Your task to perform on an android device: Open Reddit.com Image 0: 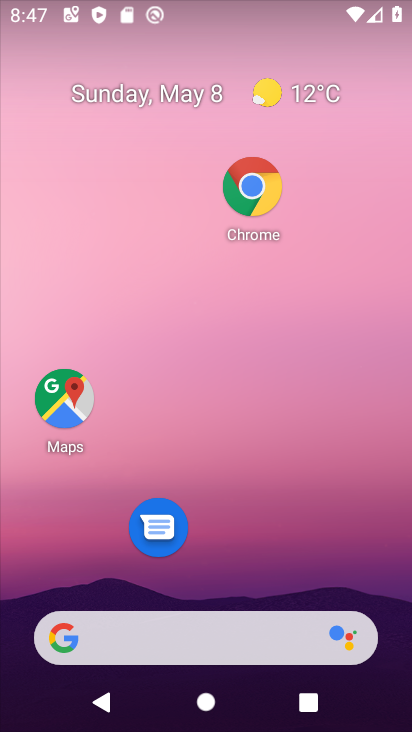
Step 0: drag from (279, 550) to (284, 329)
Your task to perform on an android device: Open Reddit.com Image 1: 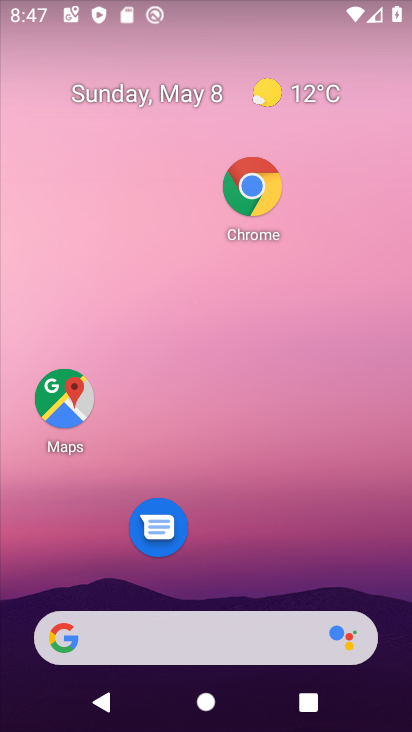
Step 1: drag from (252, 559) to (306, 360)
Your task to perform on an android device: Open Reddit.com Image 2: 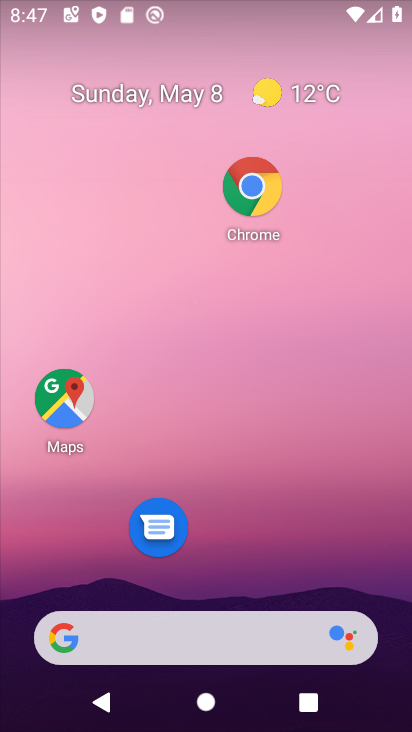
Step 2: drag from (263, 604) to (326, 313)
Your task to perform on an android device: Open Reddit.com Image 3: 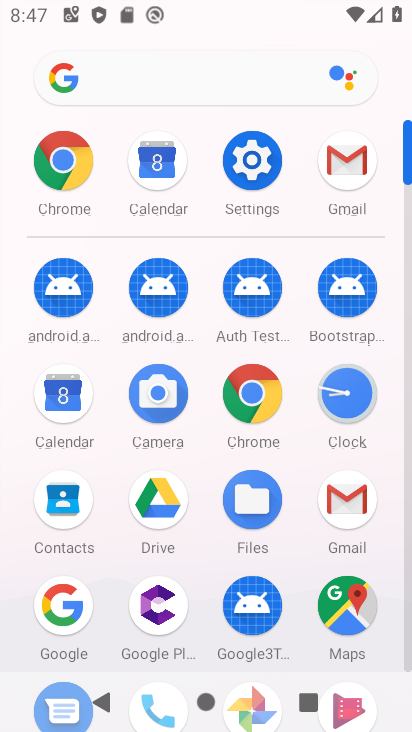
Step 3: click (238, 388)
Your task to perform on an android device: Open Reddit.com Image 4: 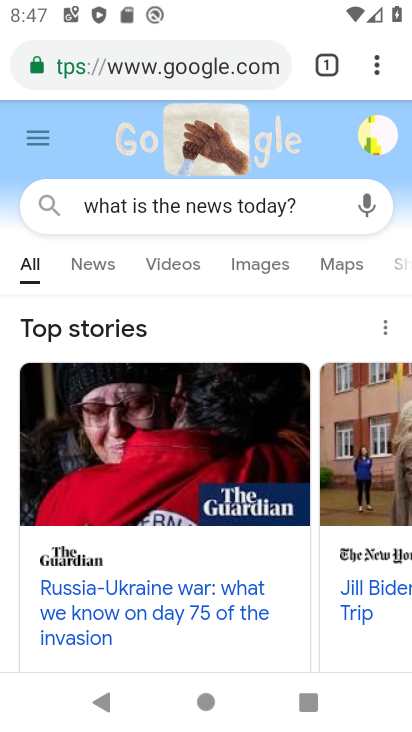
Step 4: click (367, 67)
Your task to perform on an android device: Open Reddit.com Image 5: 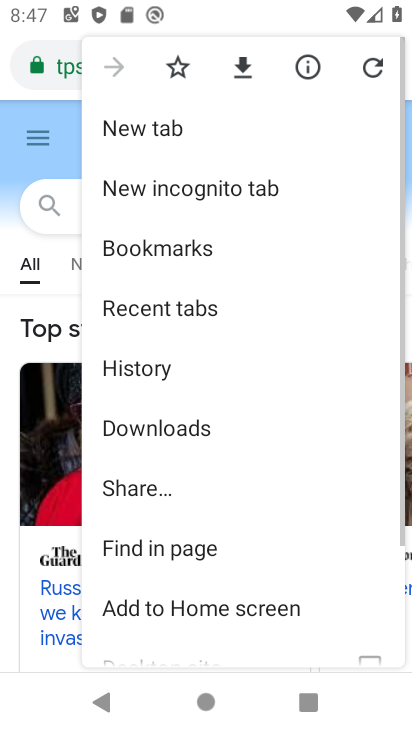
Step 5: click (173, 135)
Your task to perform on an android device: Open Reddit.com Image 6: 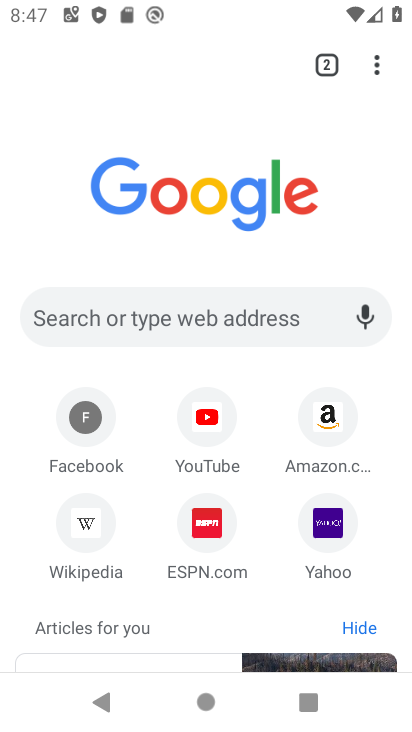
Step 6: click (116, 314)
Your task to perform on an android device: Open Reddit.com Image 7: 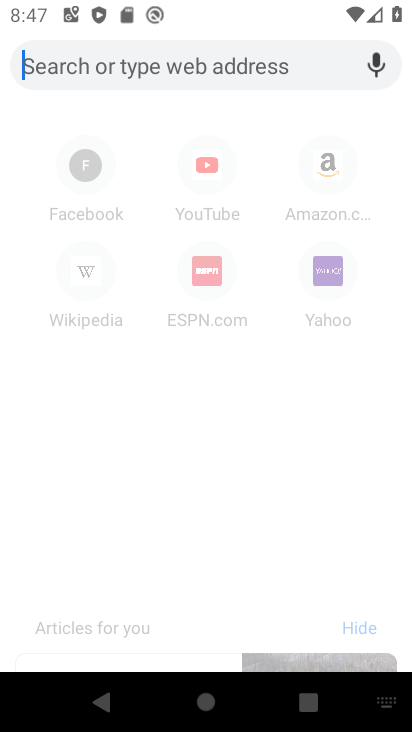
Step 7: type " Reddit.com"
Your task to perform on an android device: Open Reddit.com Image 8: 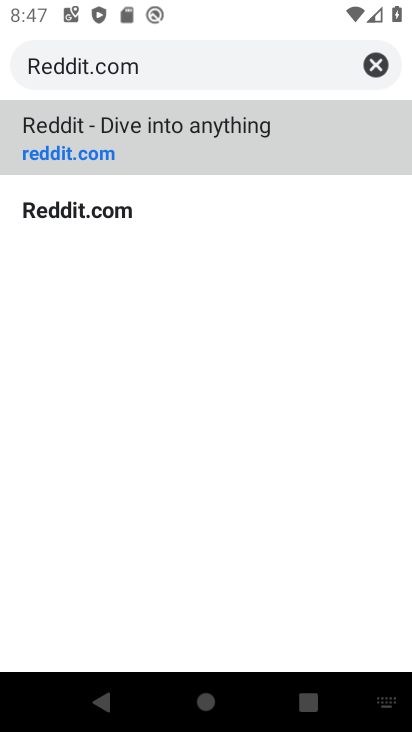
Step 8: click (135, 145)
Your task to perform on an android device: Open Reddit.com Image 9: 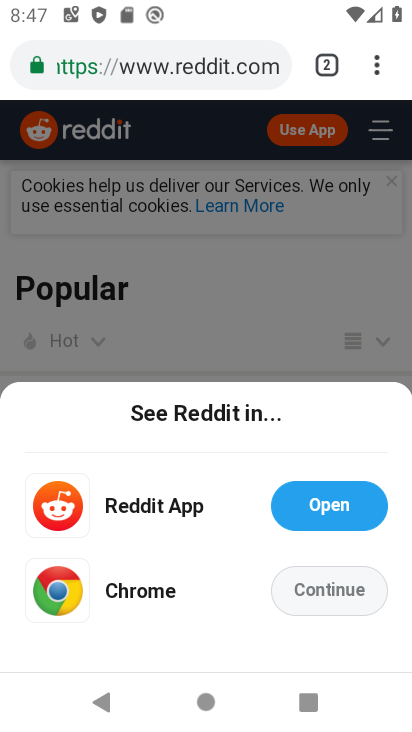
Step 9: click (151, 502)
Your task to perform on an android device: Open Reddit.com Image 10: 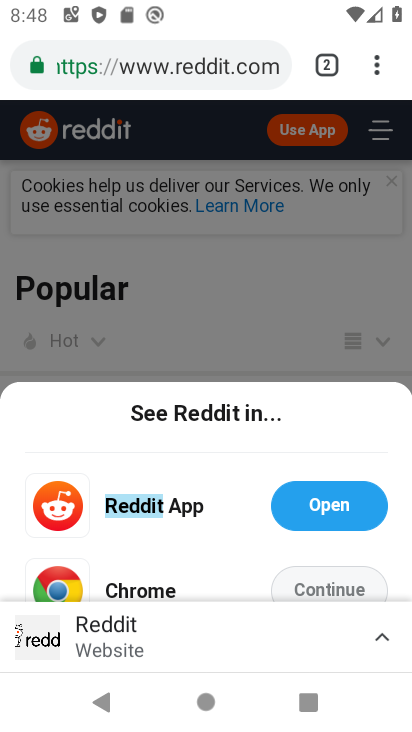
Step 10: click (299, 500)
Your task to perform on an android device: Open Reddit.com Image 11: 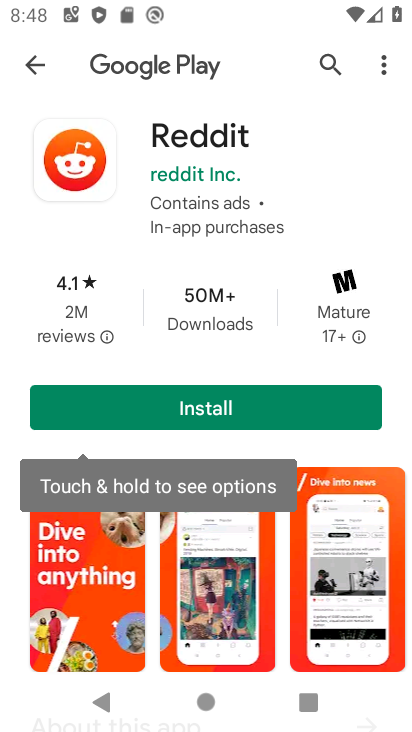
Step 11: press back button
Your task to perform on an android device: Open Reddit.com Image 12: 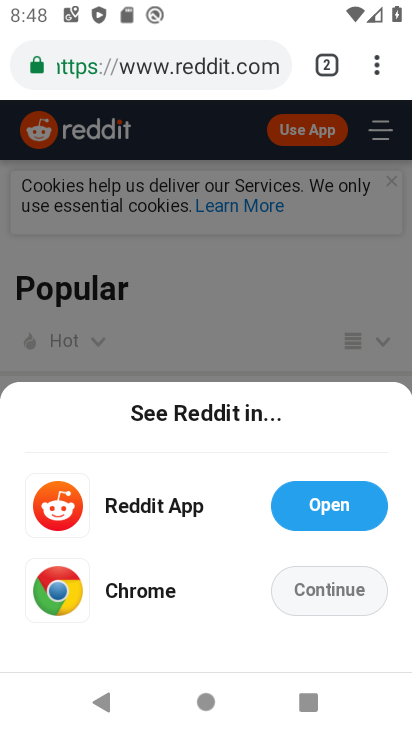
Step 12: click (337, 314)
Your task to perform on an android device: Open Reddit.com Image 13: 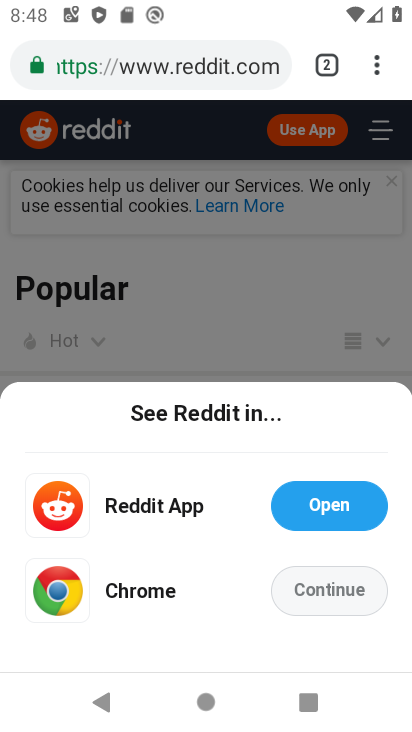
Step 13: click (304, 305)
Your task to perform on an android device: Open Reddit.com Image 14: 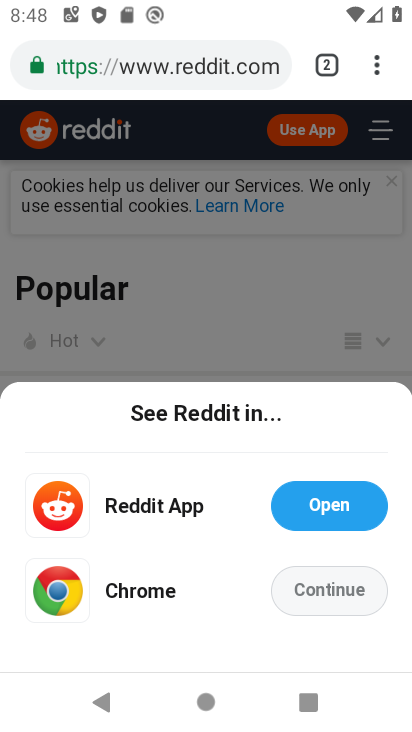
Step 14: task complete